Your task to perform on an android device: check storage Image 0: 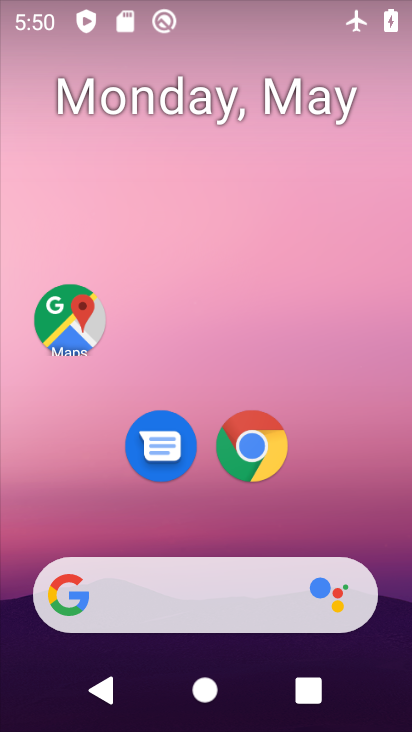
Step 0: drag from (334, 488) to (237, 121)
Your task to perform on an android device: check storage Image 1: 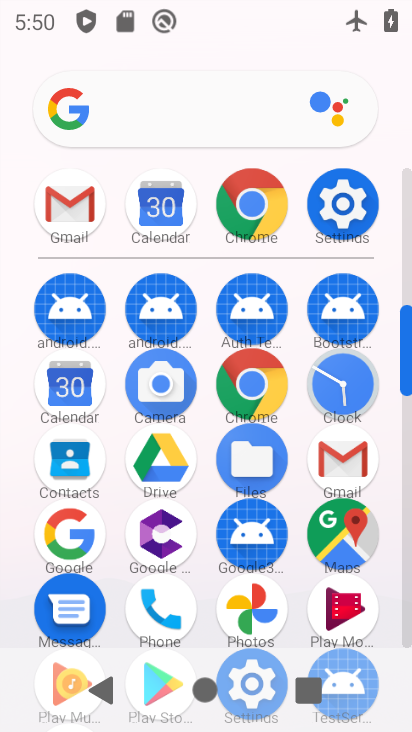
Step 1: click (353, 199)
Your task to perform on an android device: check storage Image 2: 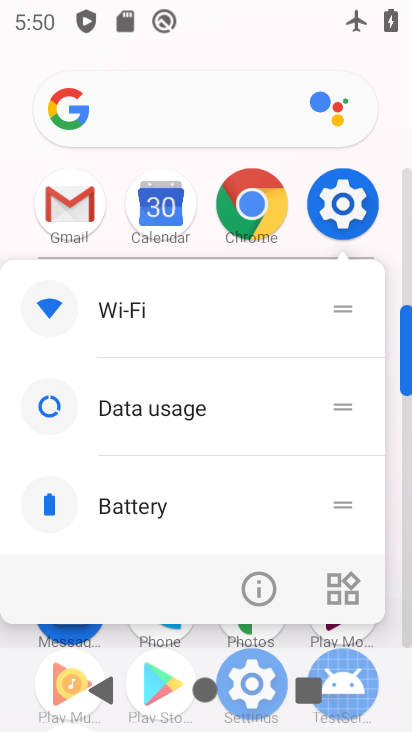
Step 2: click (343, 201)
Your task to perform on an android device: check storage Image 3: 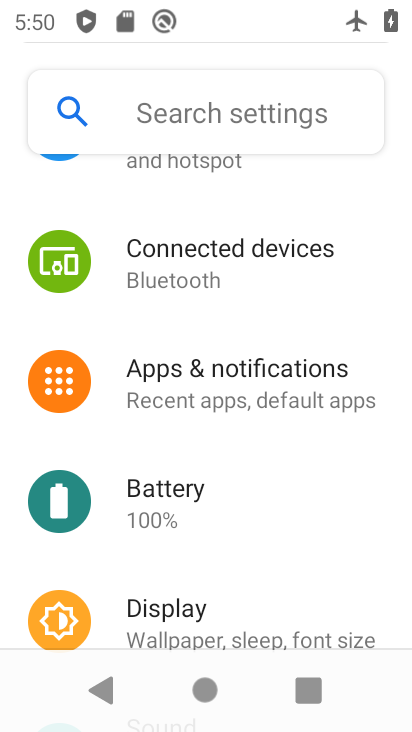
Step 3: drag from (222, 514) to (159, 168)
Your task to perform on an android device: check storage Image 4: 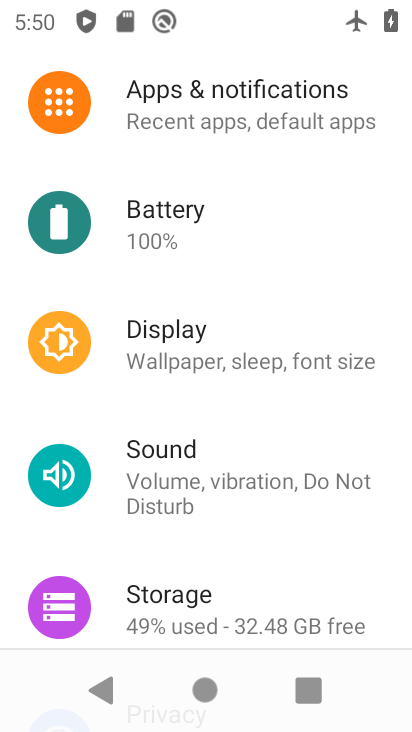
Step 4: drag from (234, 537) to (211, 354)
Your task to perform on an android device: check storage Image 5: 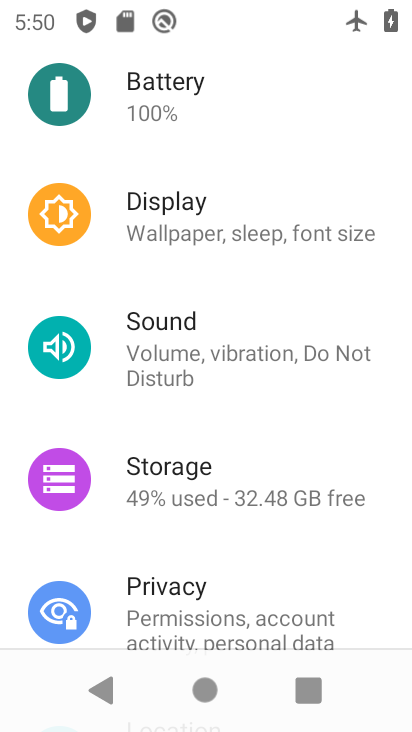
Step 5: click (169, 485)
Your task to perform on an android device: check storage Image 6: 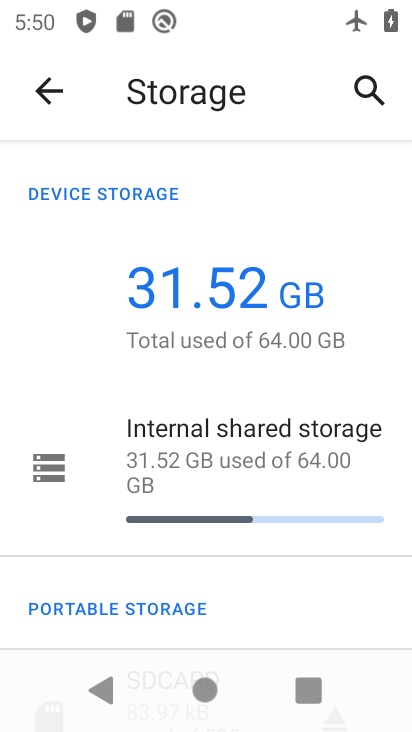
Step 6: task complete